Your task to perform on an android device: open wifi settings Image 0: 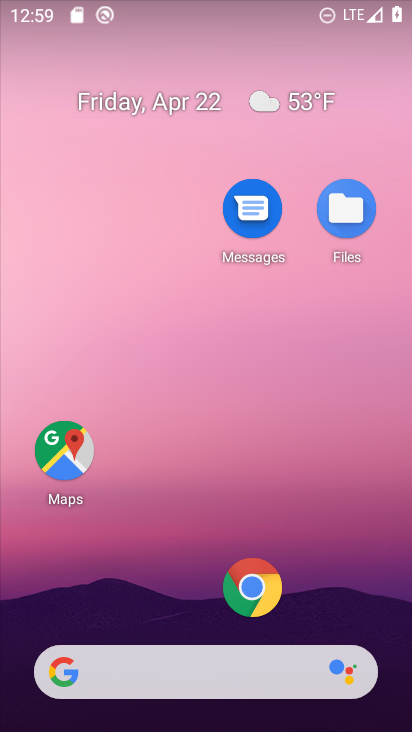
Step 0: drag from (209, 524) to (208, 161)
Your task to perform on an android device: open wifi settings Image 1: 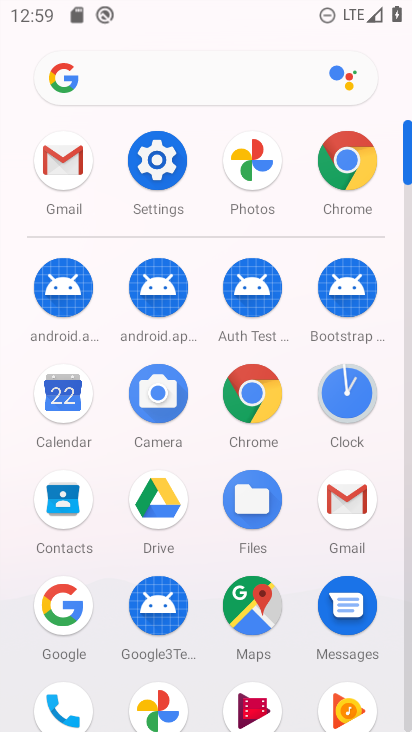
Step 1: click (156, 163)
Your task to perform on an android device: open wifi settings Image 2: 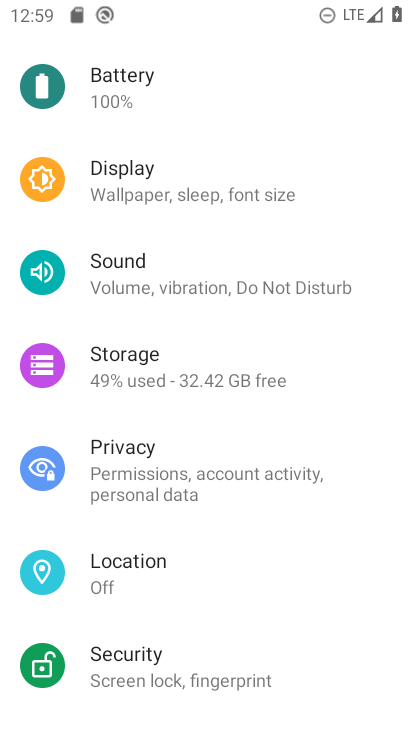
Step 2: drag from (153, 180) to (138, 629)
Your task to perform on an android device: open wifi settings Image 3: 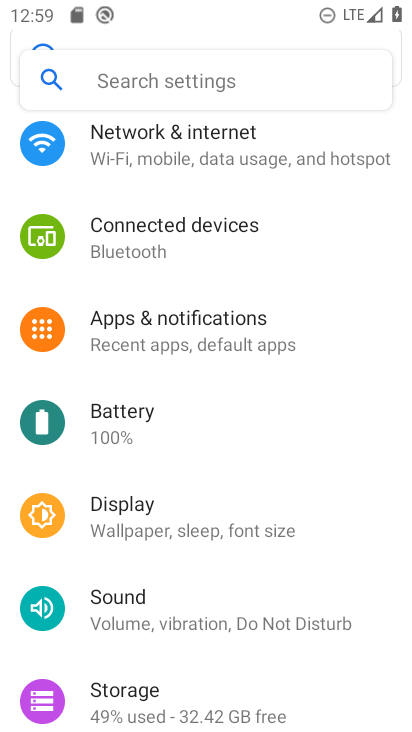
Step 3: drag from (176, 160) to (177, 643)
Your task to perform on an android device: open wifi settings Image 4: 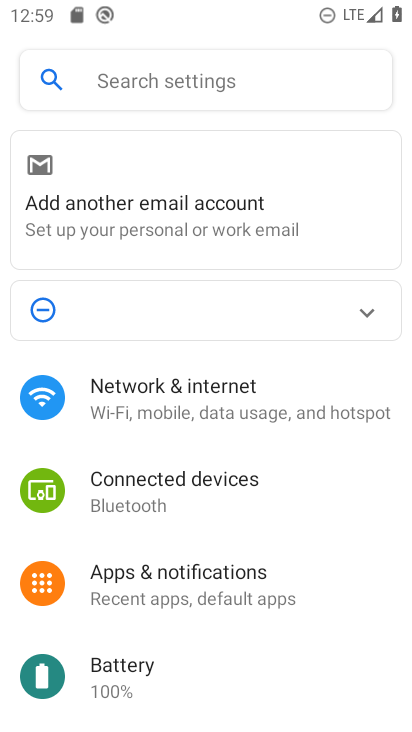
Step 4: click (203, 390)
Your task to perform on an android device: open wifi settings Image 5: 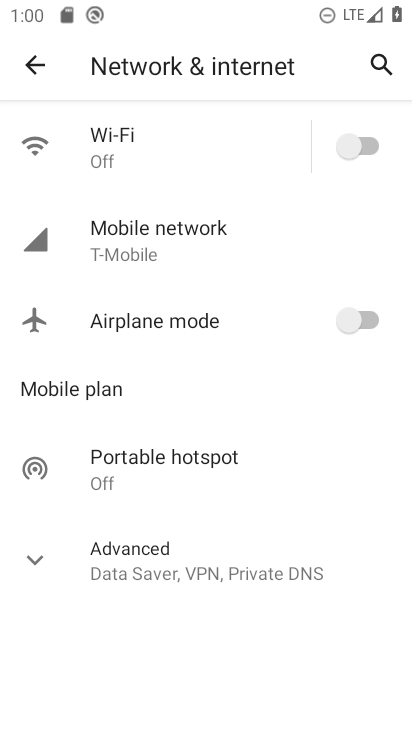
Step 5: click (162, 148)
Your task to perform on an android device: open wifi settings Image 6: 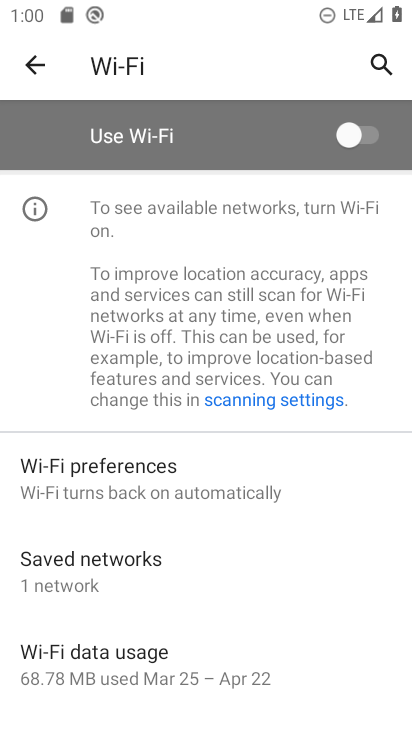
Step 6: task complete